Your task to perform on an android device: Go to sound settings Image 0: 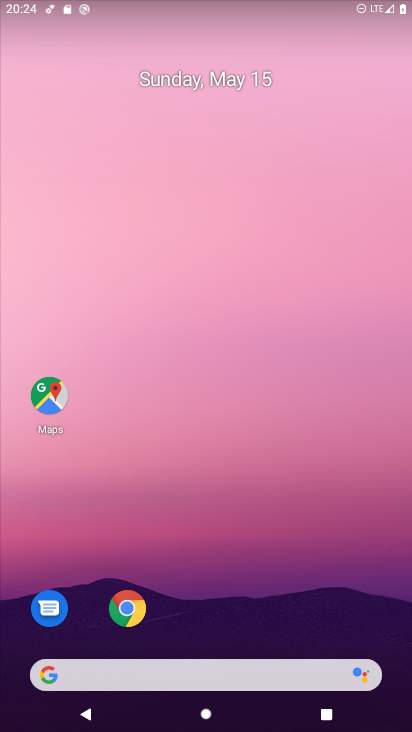
Step 0: drag from (271, 576) to (185, 14)
Your task to perform on an android device: Go to sound settings Image 1: 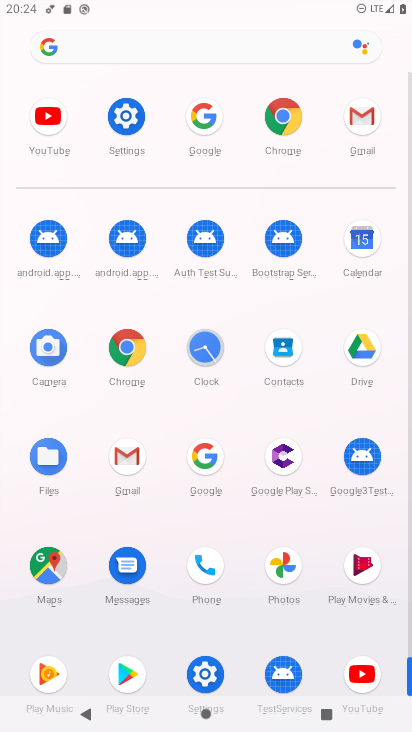
Step 1: click (125, 106)
Your task to perform on an android device: Go to sound settings Image 2: 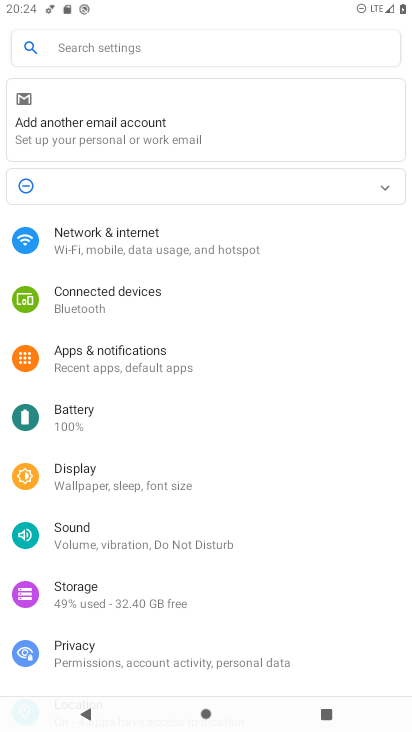
Step 2: click (72, 529)
Your task to perform on an android device: Go to sound settings Image 3: 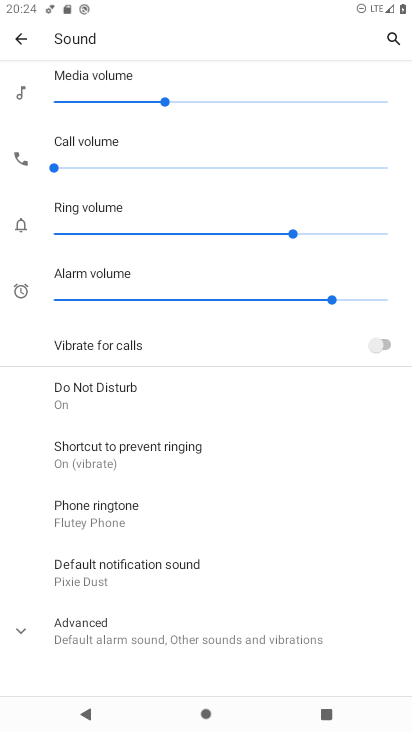
Step 3: task complete